Your task to perform on an android device: Set the phone to "Do not disturb". Image 0: 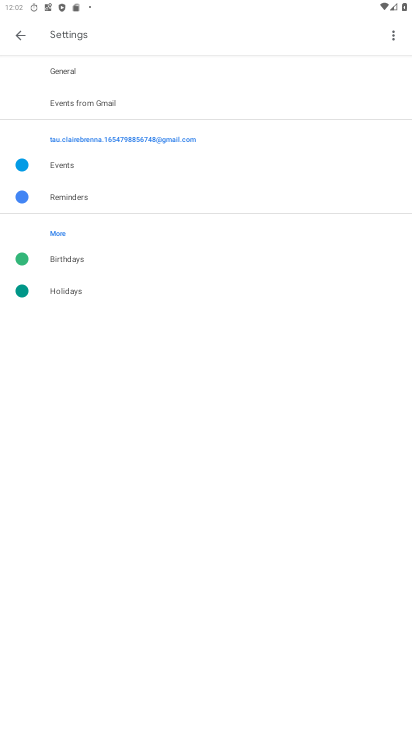
Step 0: drag from (268, 0) to (220, 506)
Your task to perform on an android device: Set the phone to "Do not disturb". Image 1: 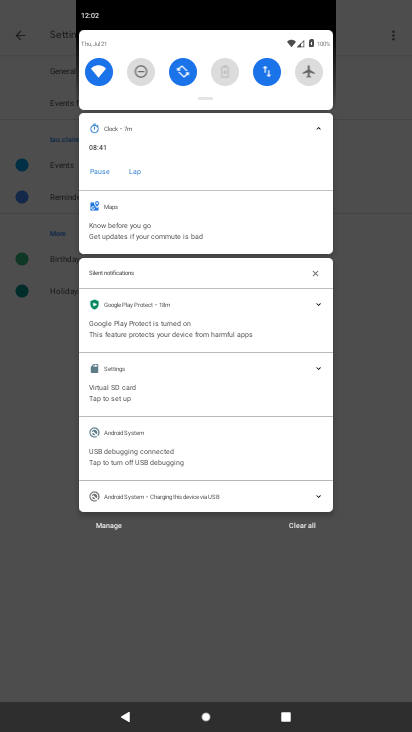
Step 1: click (143, 73)
Your task to perform on an android device: Set the phone to "Do not disturb". Image 2: 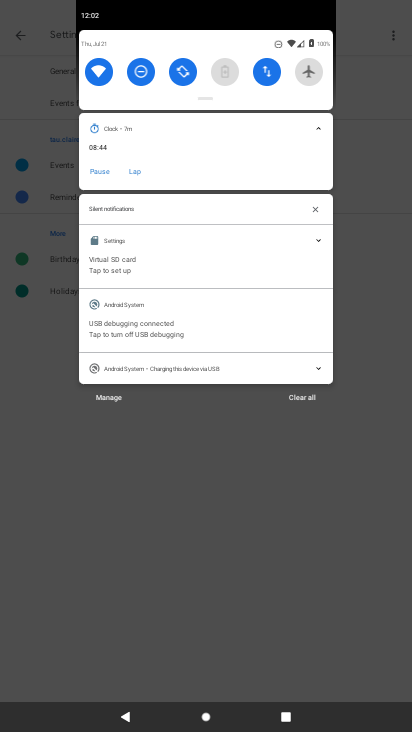
Step 2: task complete